Your task to perform on an android device: find which apps use the phone's location Image 0: 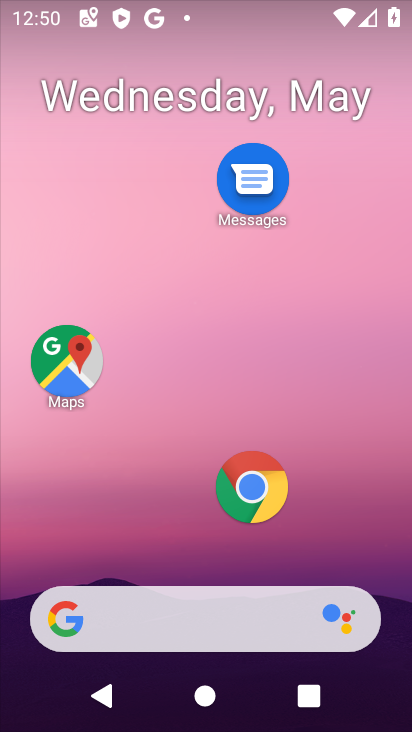
Step 0: drag from (161, 560) to (186, 9)
Your task to perform on an android device: find which apps use the phone's location Image 1: 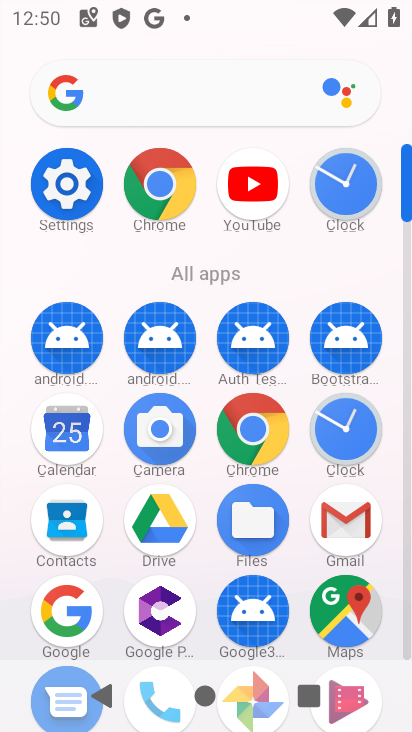
Step 1: click (81, 194)
Your task to perform on an android device: find which apps use the phone's location Image 2: 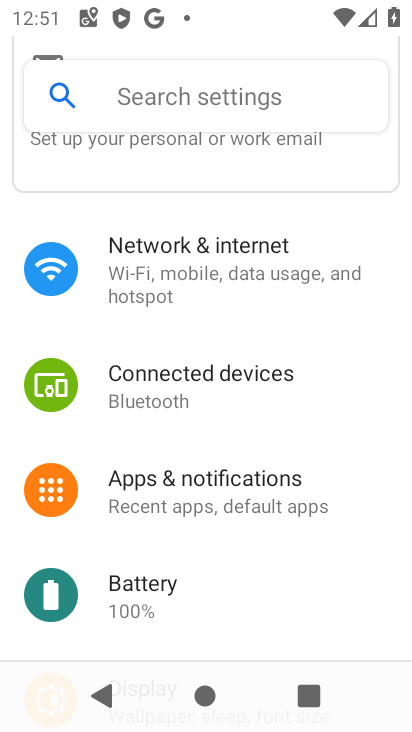
Step 2: drag from (200, 544) to (258, 229)
Your task to perform on an android device: find which apps use the phone's location Image 3: 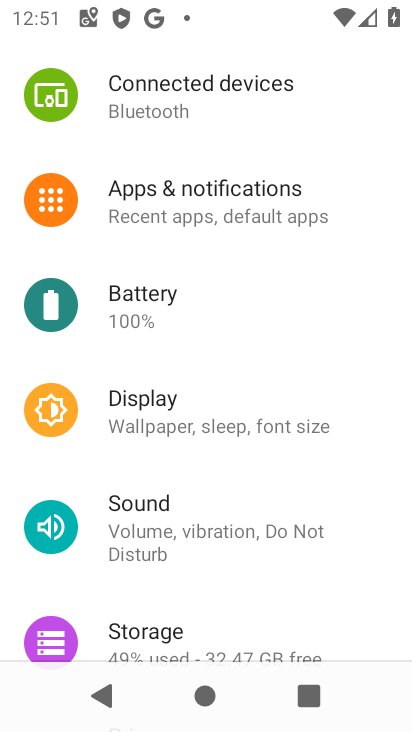
Step 3: drag from (155, 599) to (231, 278)
Your task to perform on an android device: find which apps use the phone's location Image 4: 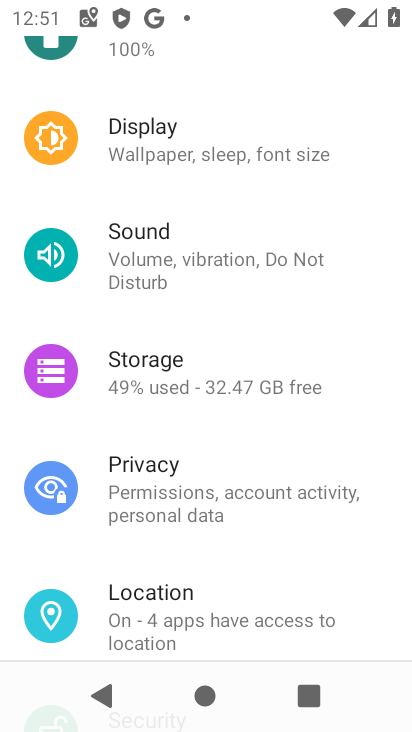
Step 4: click (183, 597)
Your task to perform on an android device: find which apps use the phone's location Image 5: 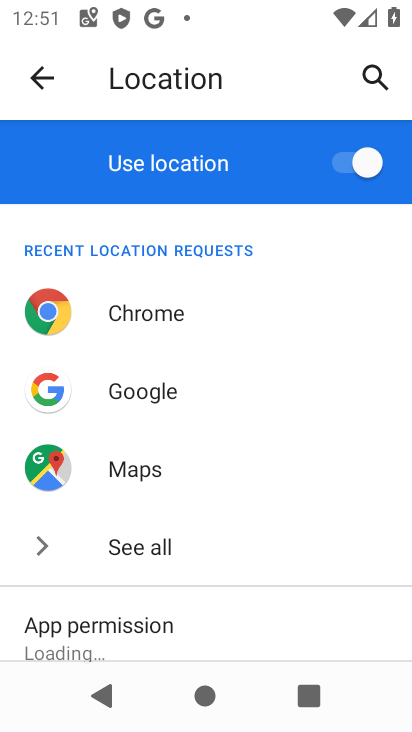
Step 5: drag from (128, 627) to (156, 510)
Your task to perform on an android device: find which apps use the phone's location Image 6: 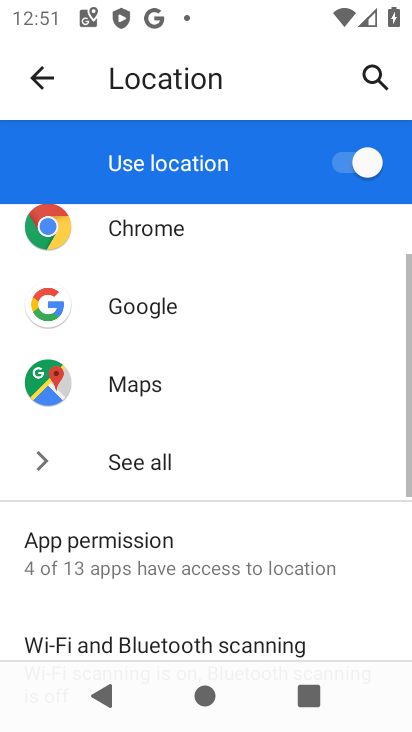
Step 6: click (139, 550)
Your task to perform on an android device: find which apps use the phone's location Image 7: 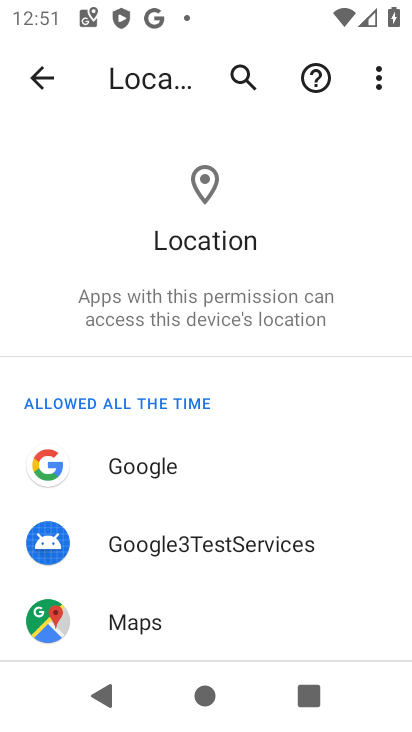
Step 7: task complete